Your task to perform on an android device: turn off wifi Image 0: 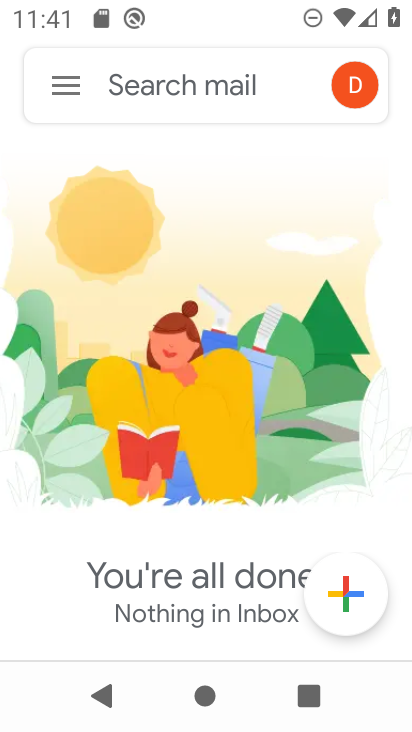
Step 0: press home button
Your task to perform on an android device: turn off wifi Image 1: 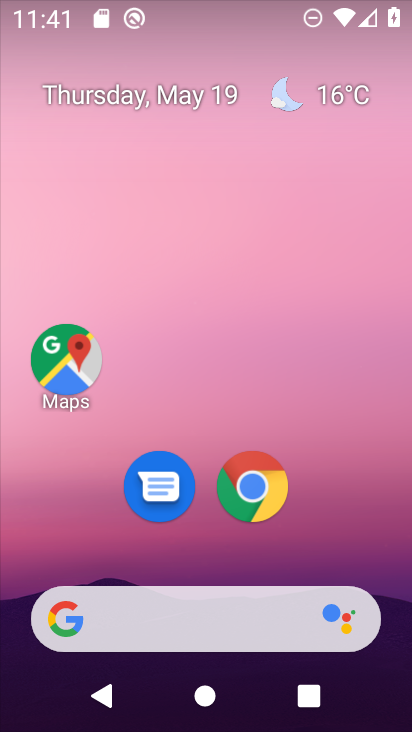
Step 1: drag from (333, 524) to (330, 289)
Your task to perform on an android device: turn off wifi Image 2: 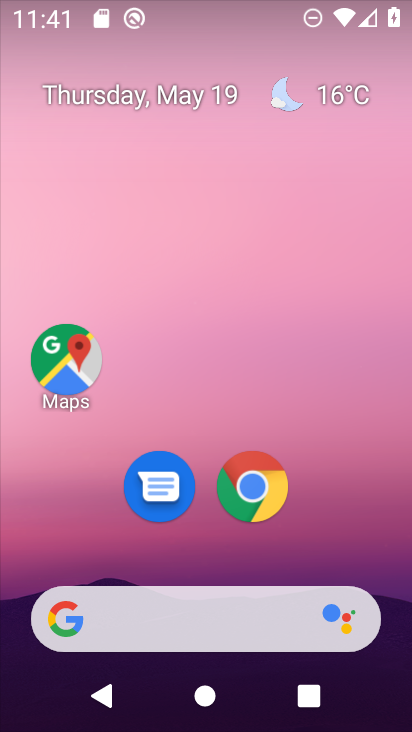
Step 2: drag from (318, 526) to (288, 148)
Your task to perform on an android device: turn off wifi Image 3: 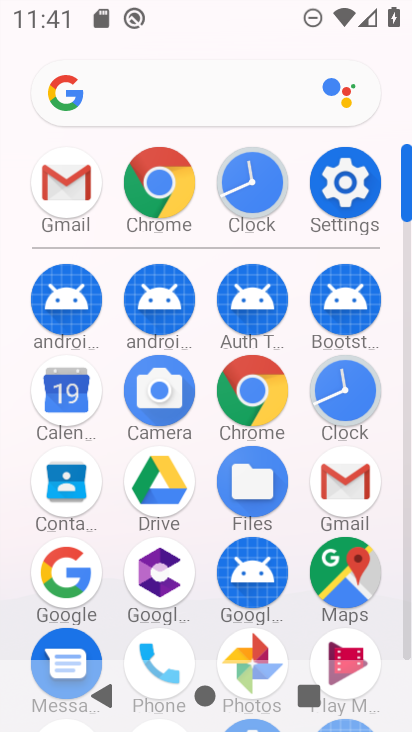
Step 3: click (345, 216)
Your task to perform on an android device: turn off wifi Image 4: 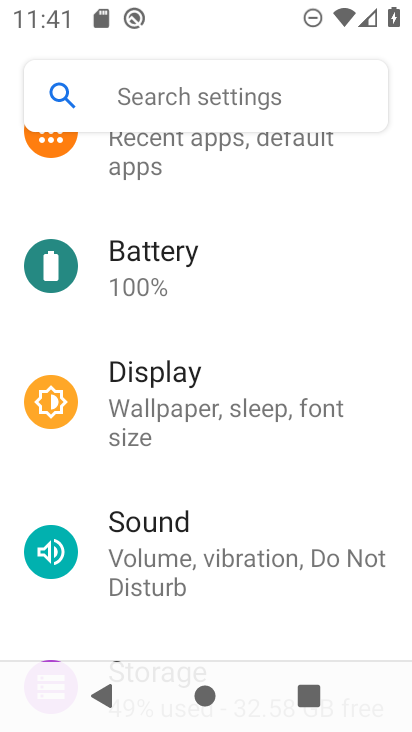
Step 4: drag from (278, 230) to (244, 585)
Your task to perform on an android device: turn off wifi Image 5: 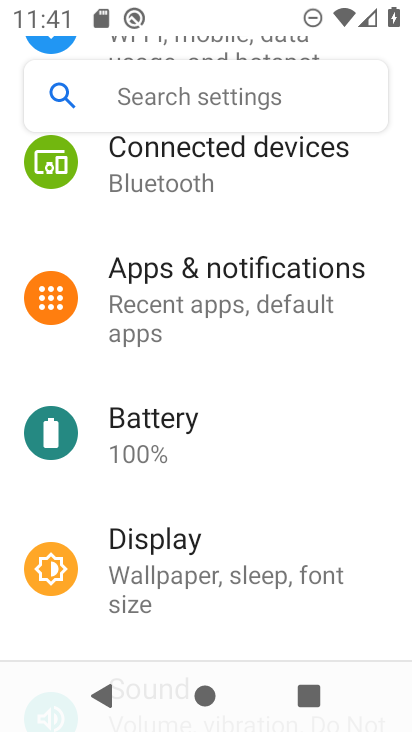
Step 5: drag from (298, 192) to (319, 470)
Your task to perform on an android device: turn off wifi Image 6: 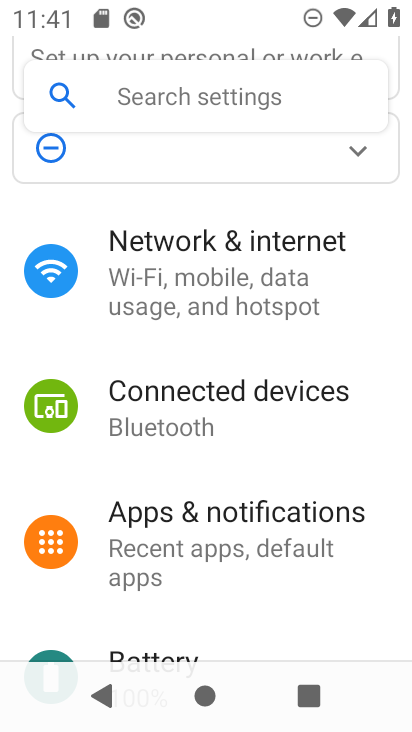
Step 6: click (268, 259)
Your task to perform on an android device: turn off wifi Image 7: 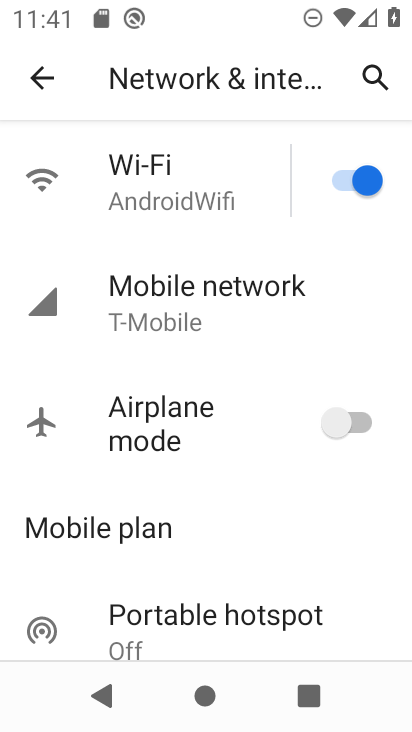
Step 7: click (351, 177)
Your task to perform on an android device: turn off wifi Image 8: 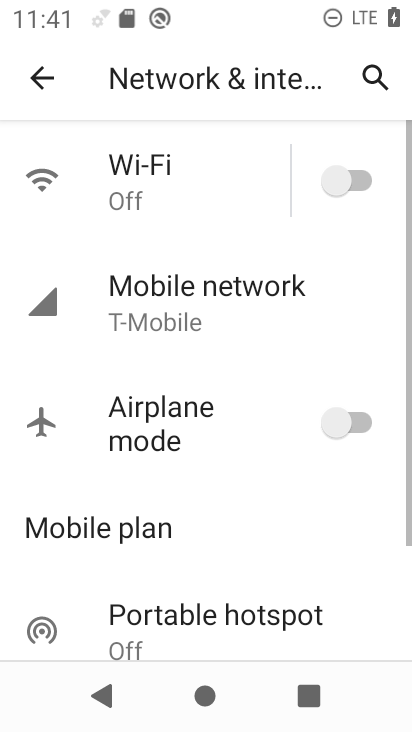
Step 8: task complete